Your task to perform on an android device: change the clock display to analog Image 0: 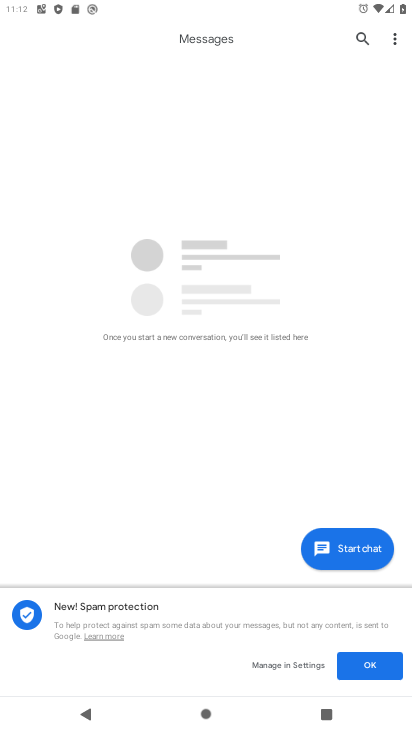
Step 0: press home button
Your task to perform on an android device: change the clock display to analog Image 1: 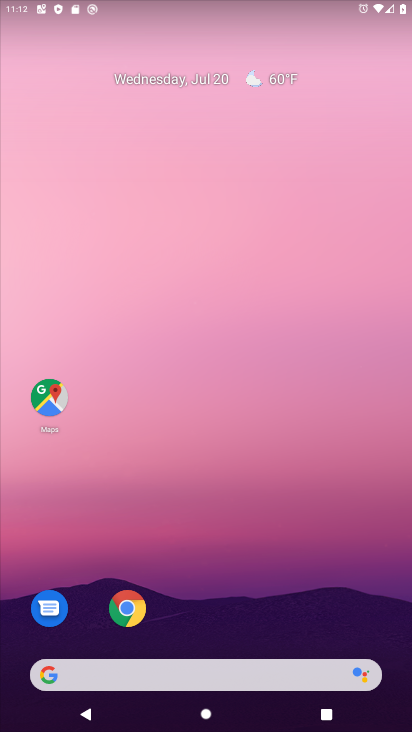
Step 1: drag from (245, 635) to (252, 198)
Your task to perform on an android device: change the clock display to analog Image 2: 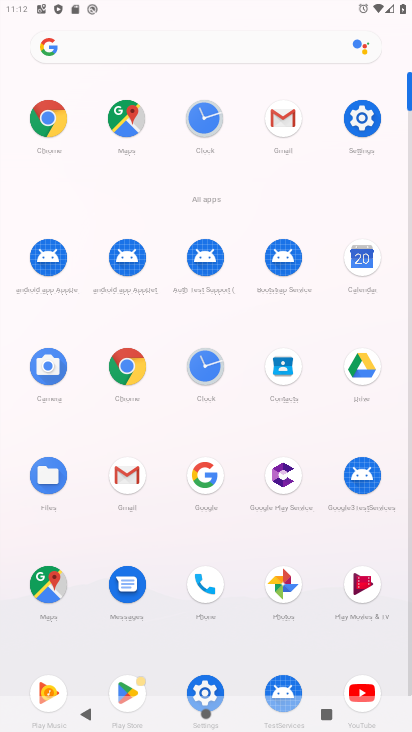
Step 2: click (208, 372)
Your task to perform on an android device: change the clock display to analog Image 3: 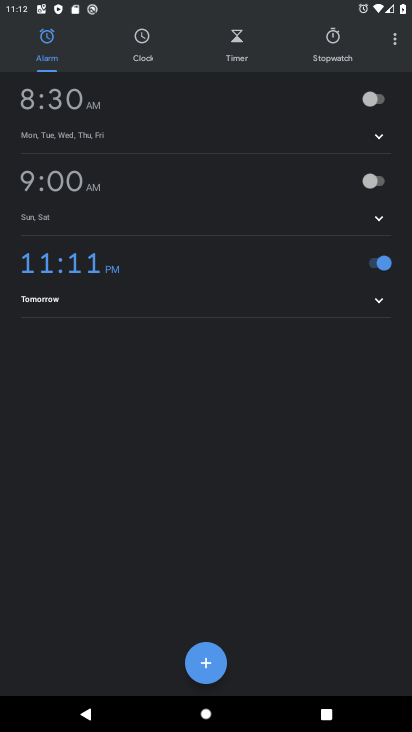
Step 3: click (393, 45)
Your task to perform on an android device: change the clock display to analog Image 4: 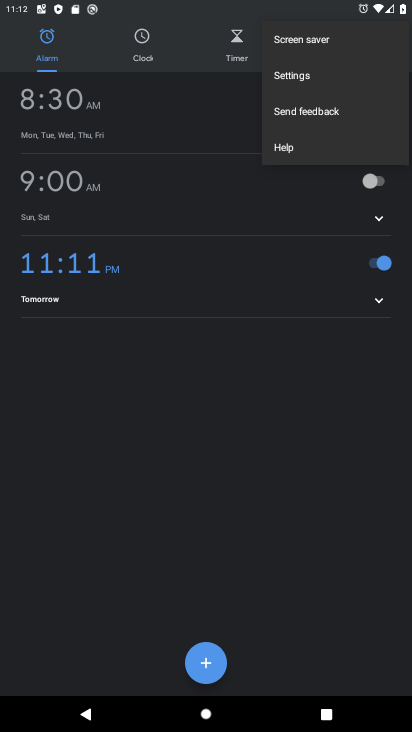
Step 4: click (305, 77)
Your task to perform on an android device: change the clock display to analog Image 5: 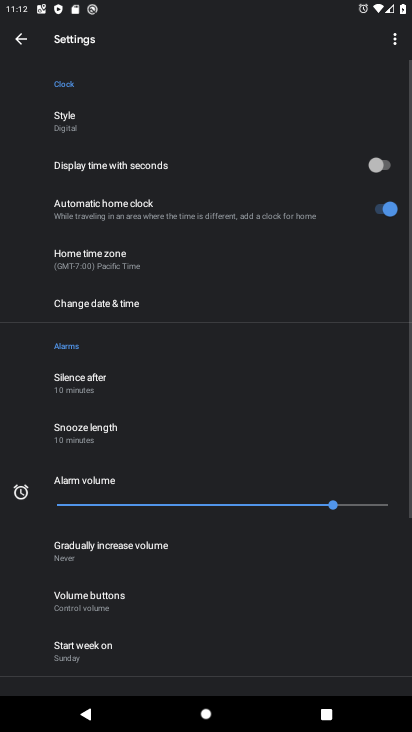
Step 5: click (84, 124)
Your task to perform on an android device: change the clock display to analog Image 6: 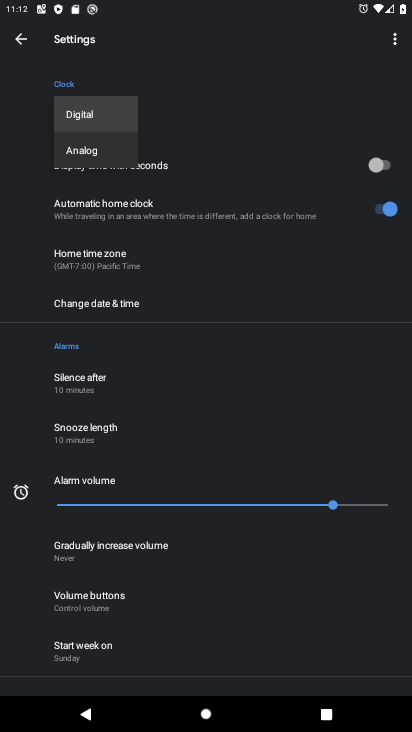
Step 6: click (86, 156)
Your task to perform on an android device: change the clock display to analog Image 7: 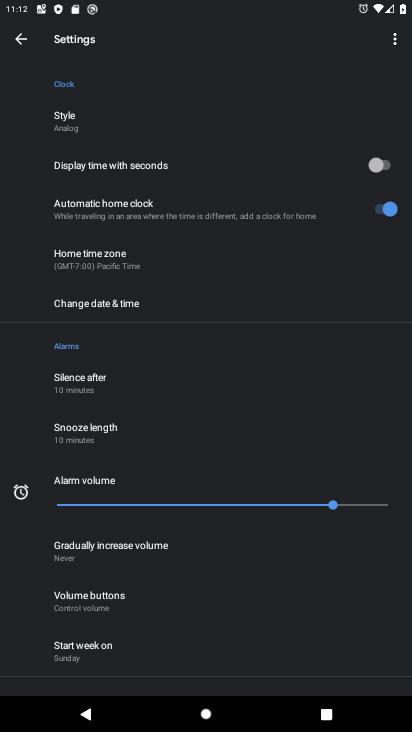
Step 7: task complete